Your task to perform on an android device: Open CNN.com Image 0: 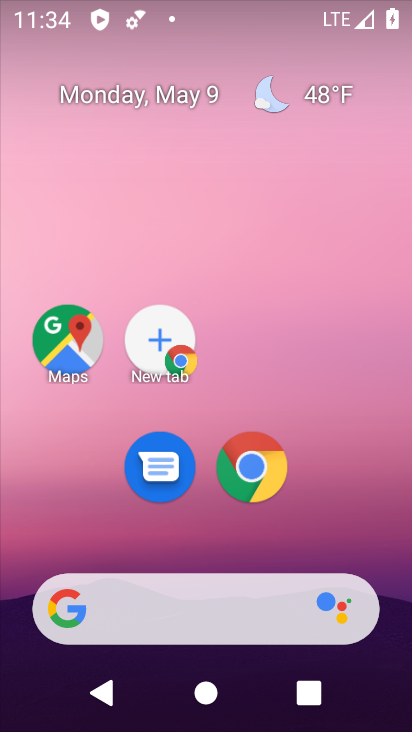
Step 0: drag from (372, 677) to (228, 118)
Your task to perform on an android device: Open CNN.com Image 1: 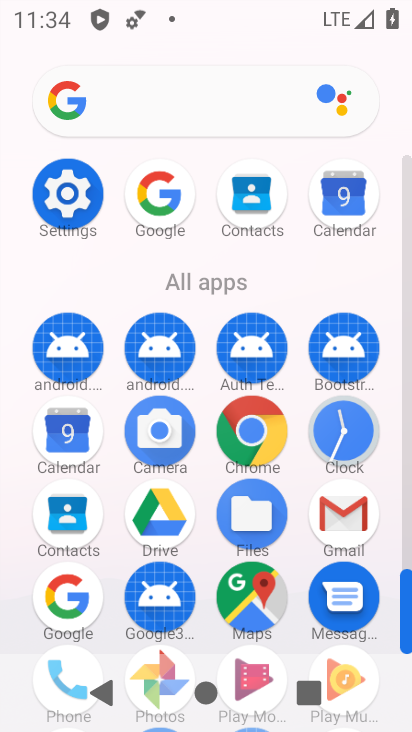
Step 1: click (260, 430)
Your task to perform on an android device: Open CNN.com Image 2: 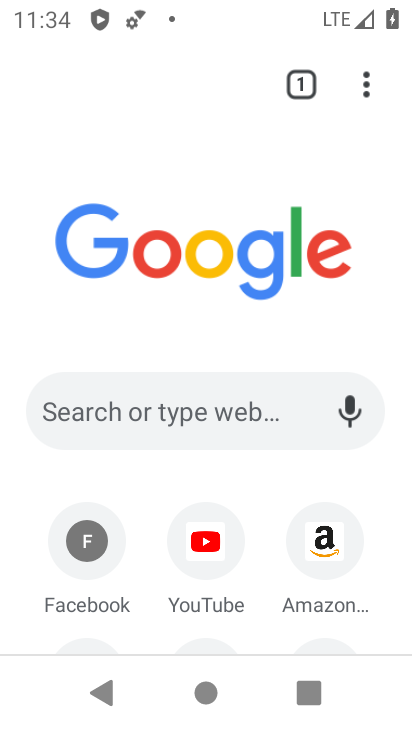
Step 2: drag from (248, 555) to (228, 139)
Your task to perform on an android device: Open CNN.com Image 3: 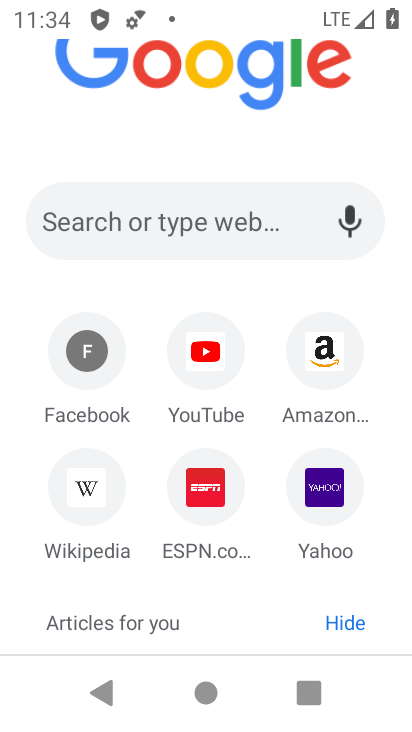
Step 3: drag from (263, 484) to (281, 66)
Your task to perform on an android device: Open CNN.com Image 4: 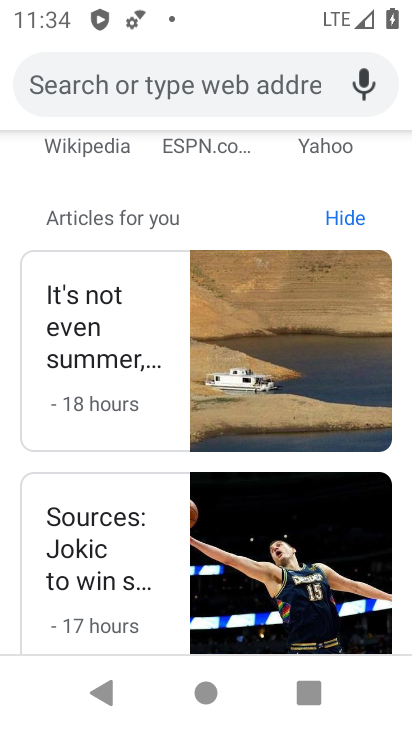
Step 4: drag from (250, 247) to (161, 601)
Your task to perform on an android device: Open CNN.com Image 5: 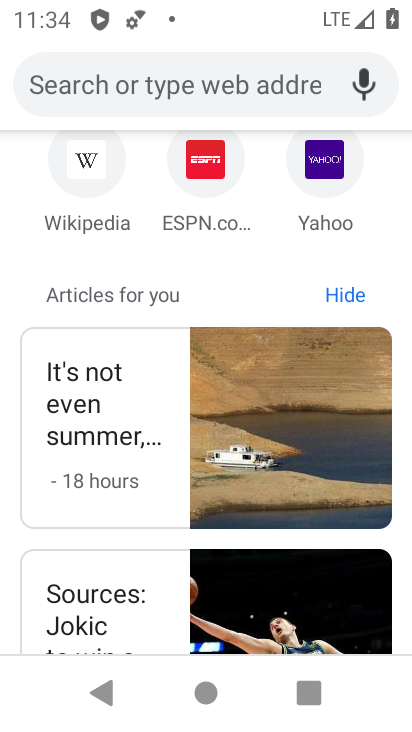
Step 5: drag from (233, 252) to (184, 634)
Your task to perform on an android device: Open CNN.com Image 6: 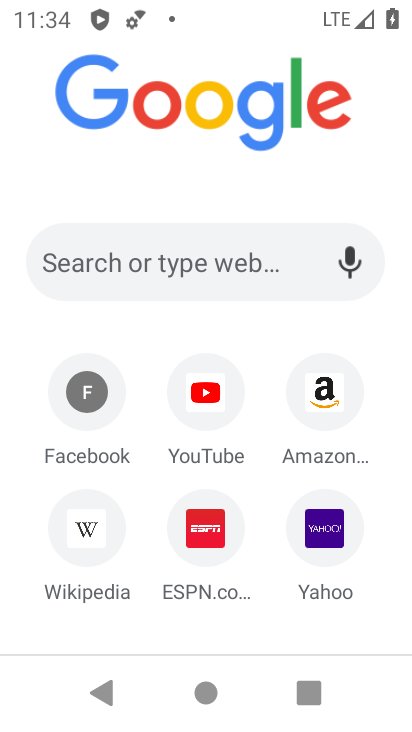
Step 6: click (120, 259)
Your task to perform on an android device: Open CNN.com Image 7: 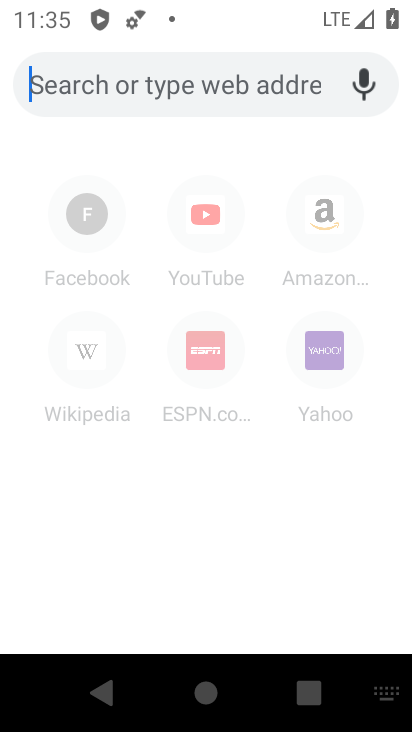
Step 7: type "cnn.com"
Your task to perform on an android device: Open CNN.com Image 8: 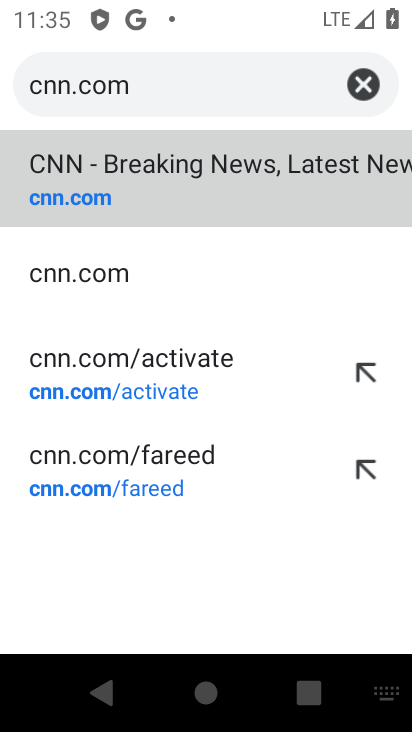
Step 8: click (127, 193)
Your task to perform on an android device: Open CNN.com Image 9: 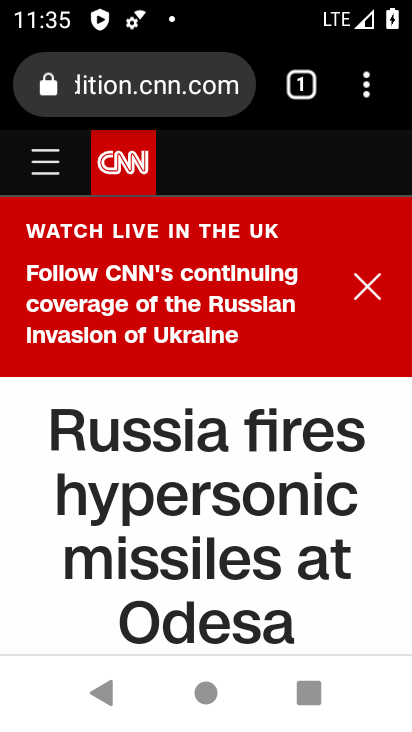
Step 9: task complete